Your task to perform on an android device: turn notification dots off Image 0: 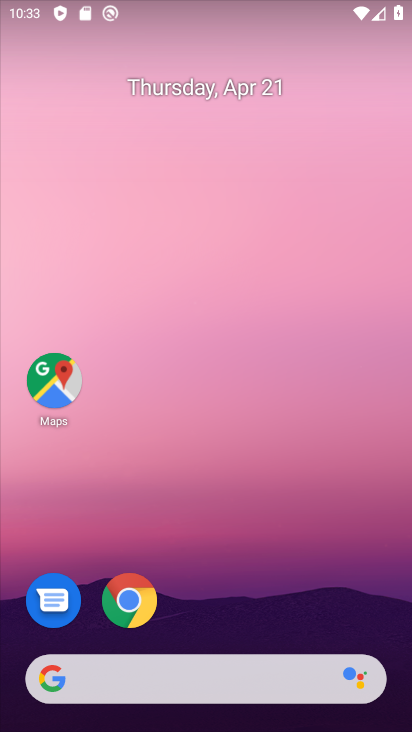
Step 0: drag from (321, 347) to (254, 0)
Your task to perform on an android device: turn notification dots off Image 1: 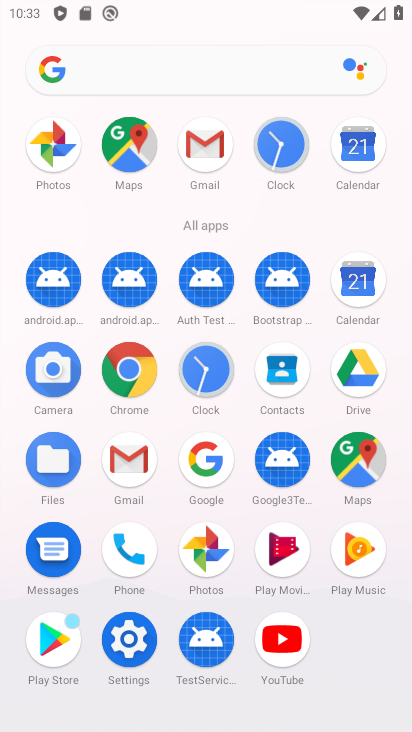
Step 1: click (114, 647)
Your task to perform on an android device: turn notification dots off Image 2: 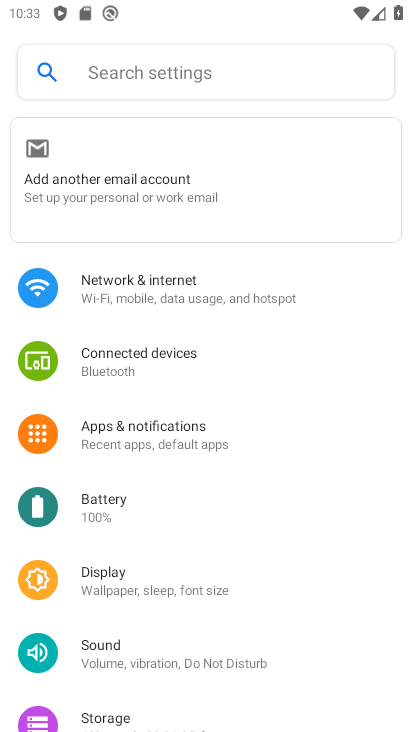
Step 2: click (184, 441)
Your task to perform on an android device: turn notification dots off Image 3: 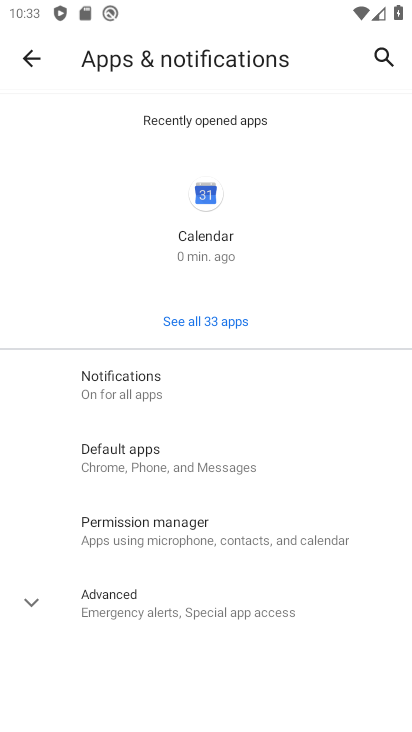
Step 3: click (100, 378)
Your task to perform on an android device: turn notification dots off Image 4: 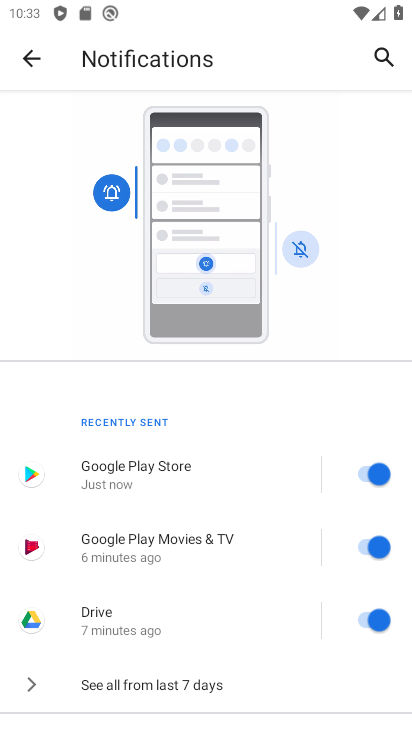
Step 4: drag from (227, 340) to (259, 169)
Your task to perform on an android device: turn notification dots off Image 5: 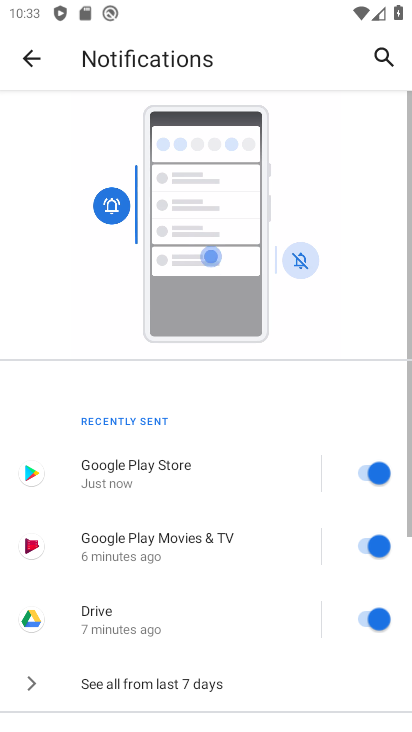
Step 5: drag from (212, 586) to (304, 274)
Your task to perform on an android device: turn notification dots off Image 6: 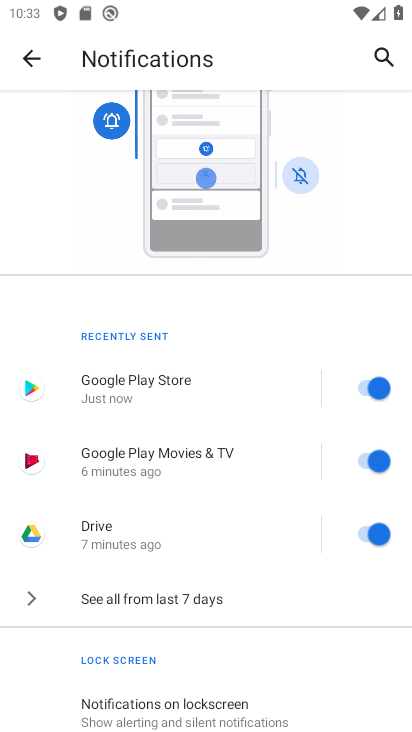
Step 6: drag from (228, 489) to (305, 197)
Your task to perform on an android device: turn notification dots off Image 7: 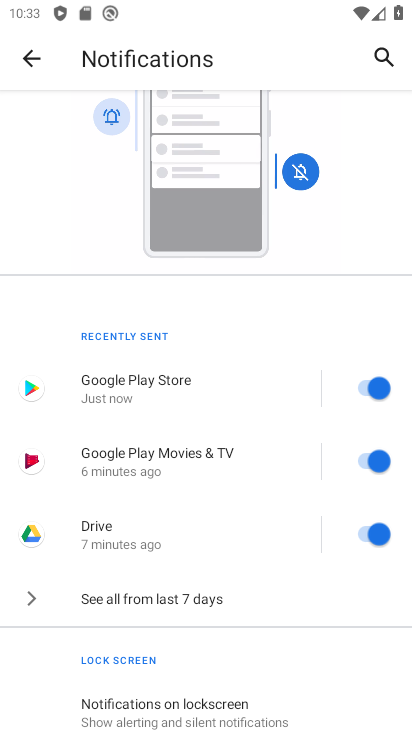
Step 7: drag from (207, 664) to (282, 353)
Your task to perform on an android device: turn notification dots off Image 8: 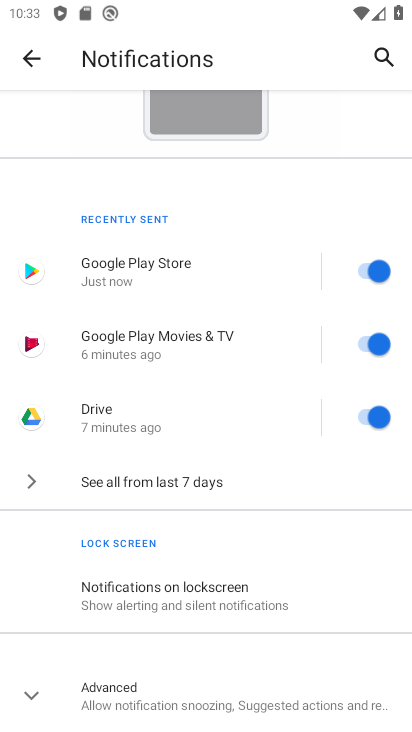
Step 8: drag from (215, 625) to (292, 272)
Your task to perform on an android device: turn notification dots off Image 9: 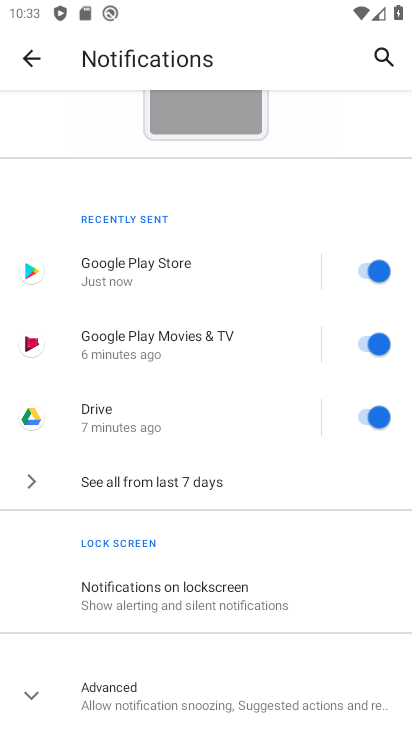
Step 9: drag from (243, 641) to (290, 306)
Your task to perform on an android device: turn notification dots off Image 10: 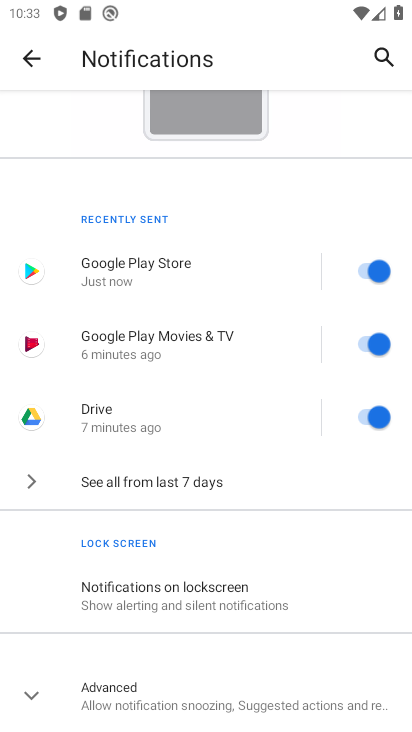
Step 10: drag from (171, 619) to (203, 351)
Your task to perform on an android device: turn notification dots off Image 11: 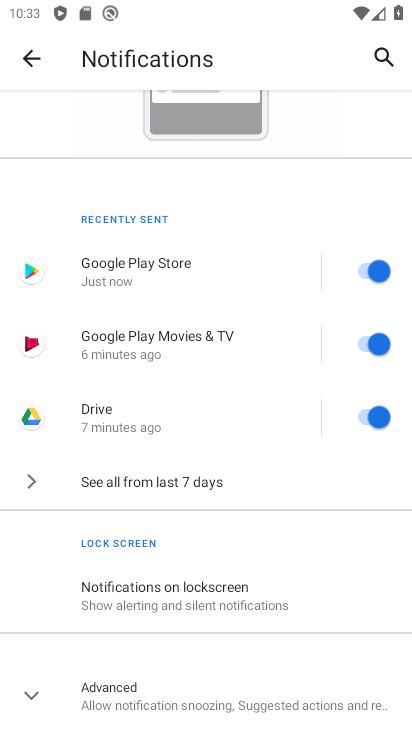
Step 11: drag from (238, 493) to (243, 302)
Your task to perform on an android device: turn notification dots off Image 12: 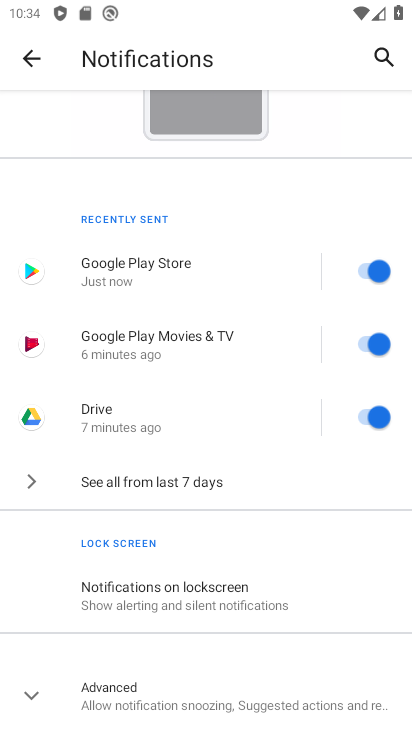
Step 12: drag from (196, 477) to (188, 372)
Your task to perform on an android device: turn notification dots off Image 13: 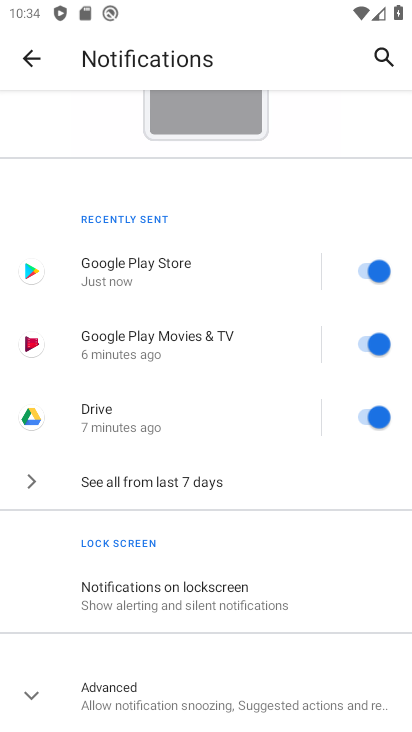
Step 13: drag from (205, 668) to (226, 369)
Your task to perform on an android device: turn notification dots off Image 14: 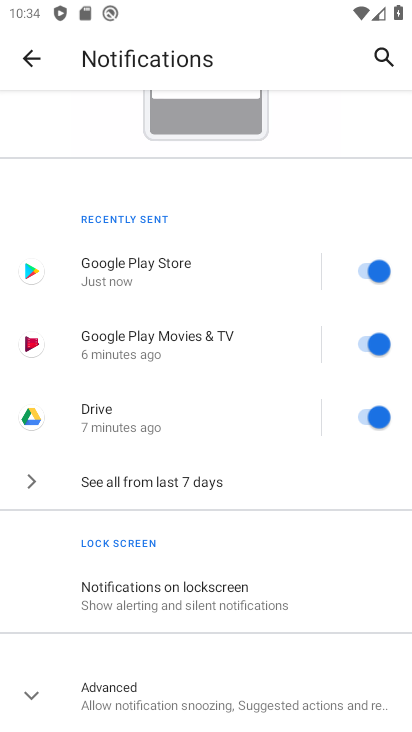
Step 14: click (154, 702)
Your task to perform on an android device: turn notification dots off Image 15: 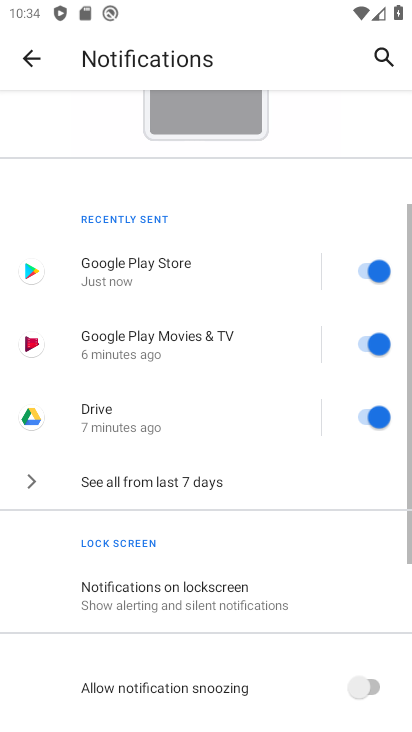
Step 15: drag from (233, 509) to (191, 232)
Your task to perform on an android device: turn notification dots off Image 16: 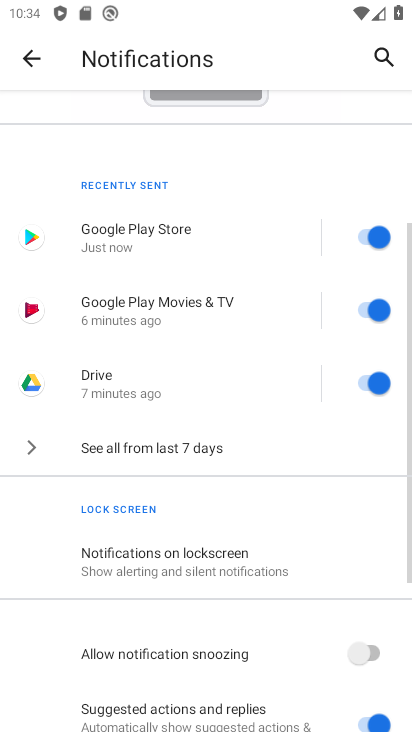
Step 16: drag from (168, 483) to (171, 278)
Your task to perform on an android device: turn notification dots off Image 17: 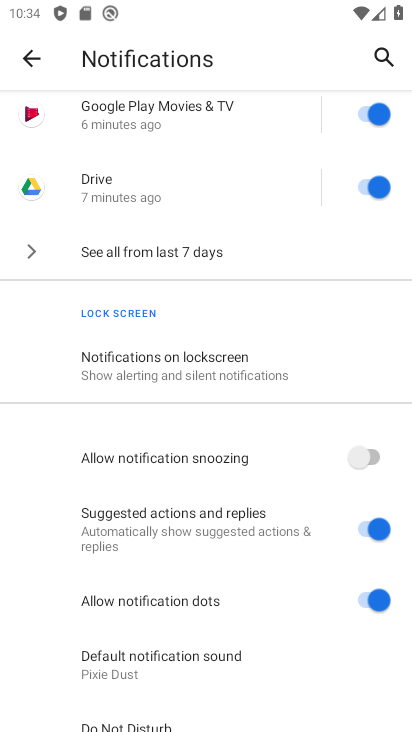
Step 17: click (224, 319)
Your task to perform on an android device: turn notification dots off Image 18: 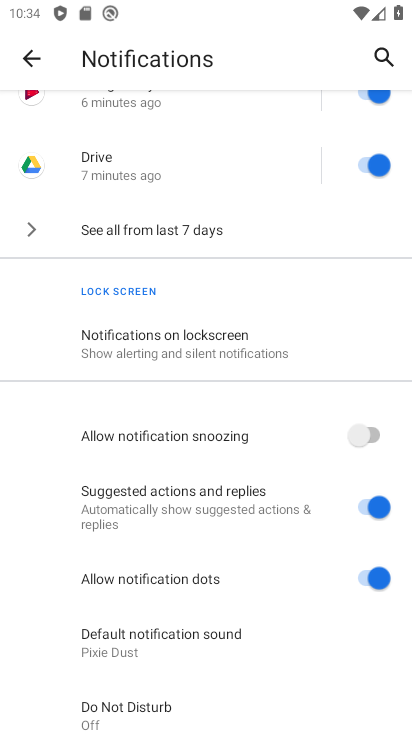
Step 18: click (374, 584)
Your task to perform on an android device: turn notification dots off Image 19: 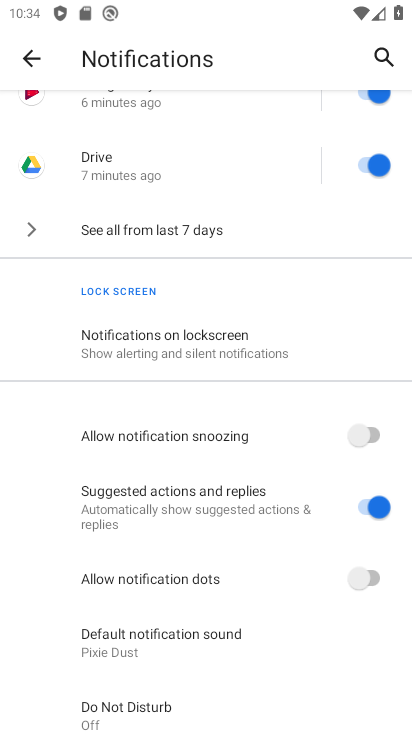
Step 19: task complete